Your task to perform on an android device: open app "Spotify" (install if not already installed) Image 0: 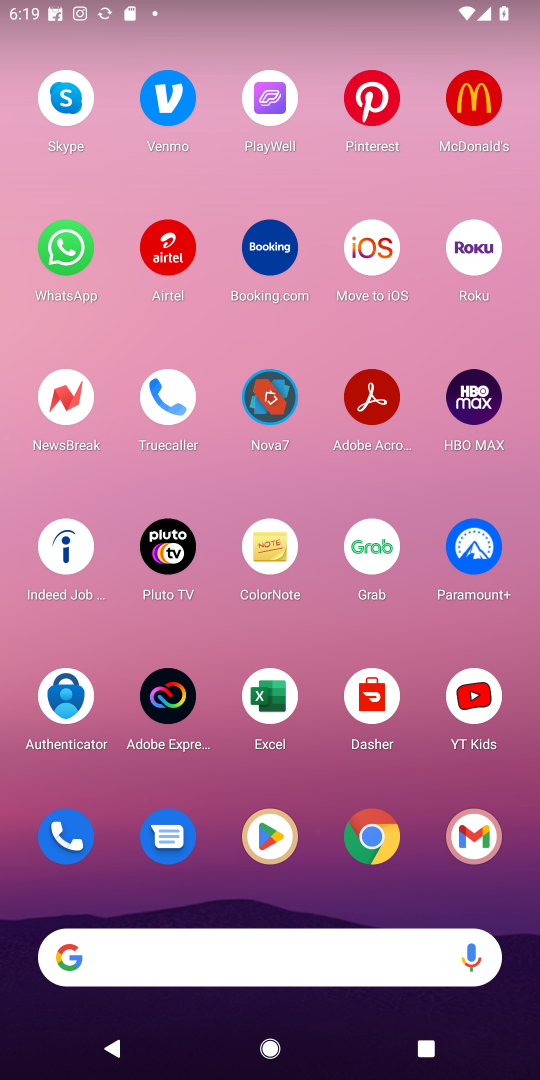
Step 0: click (271, 838)
Your task to perform on an android device: open app "Spotify" (install if not already installed) Image 1: 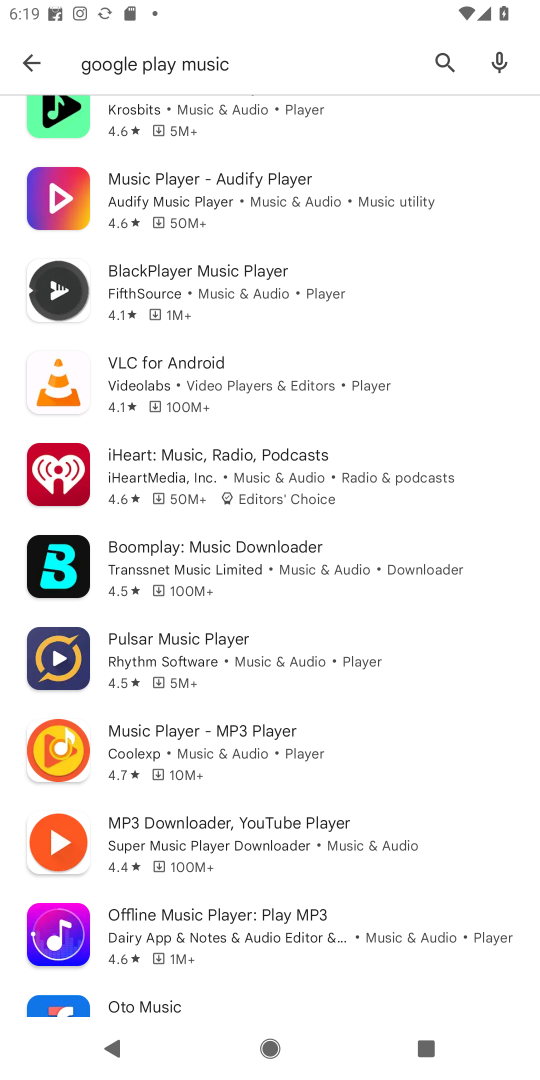
Step 1: click (441, 62)
Your task to perform on an android device: open app "Spotify" (install if not already installed) Image 2: 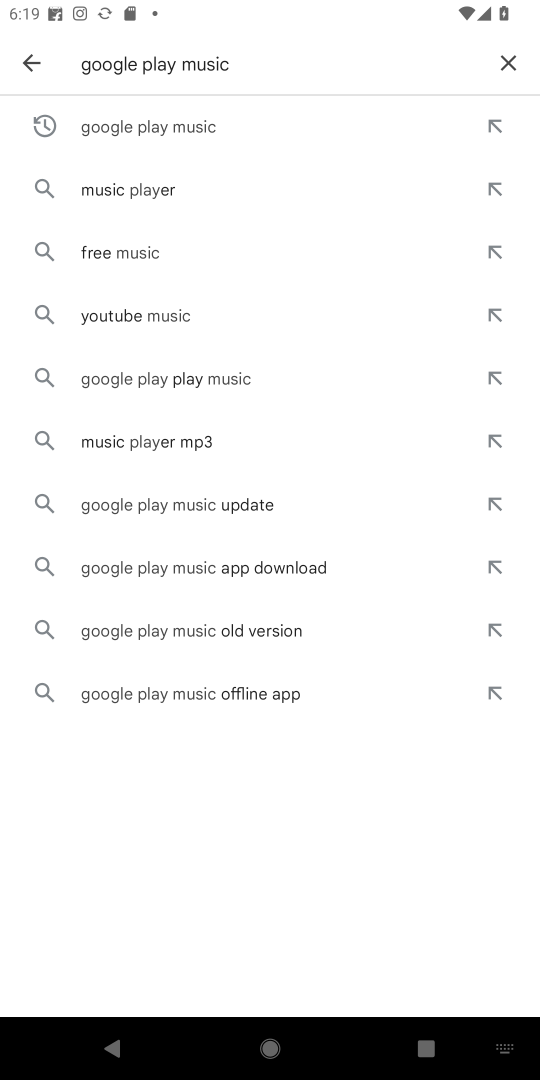
Step 2: click (511, 60)
Your task to perform on an android device: open app "Spotify" (install if not already installed) Image 3: 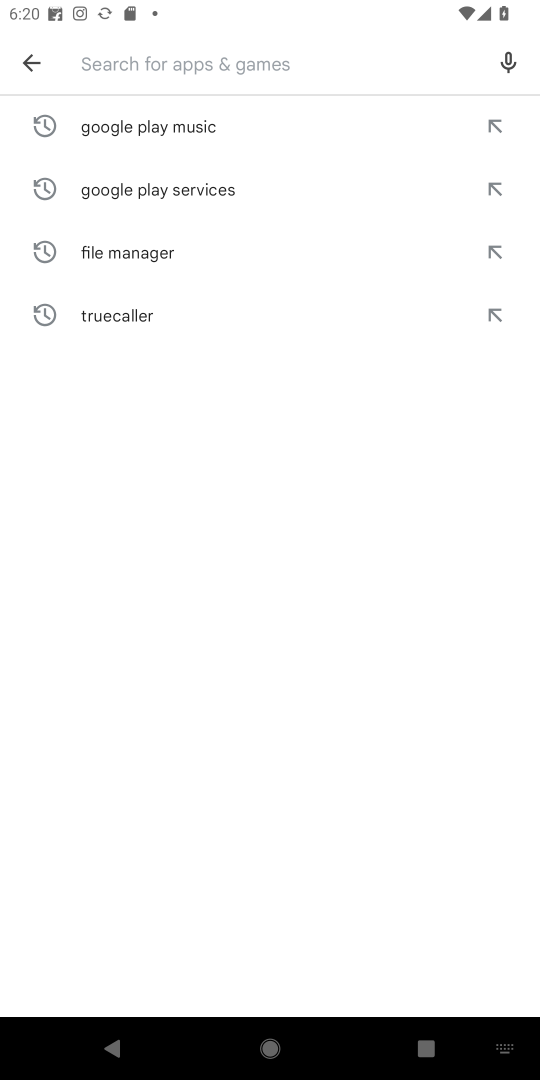
Step 3: type "spotify"
Your task to perform on an android device: open app "Spotify" (install if not already installed) Image 4: 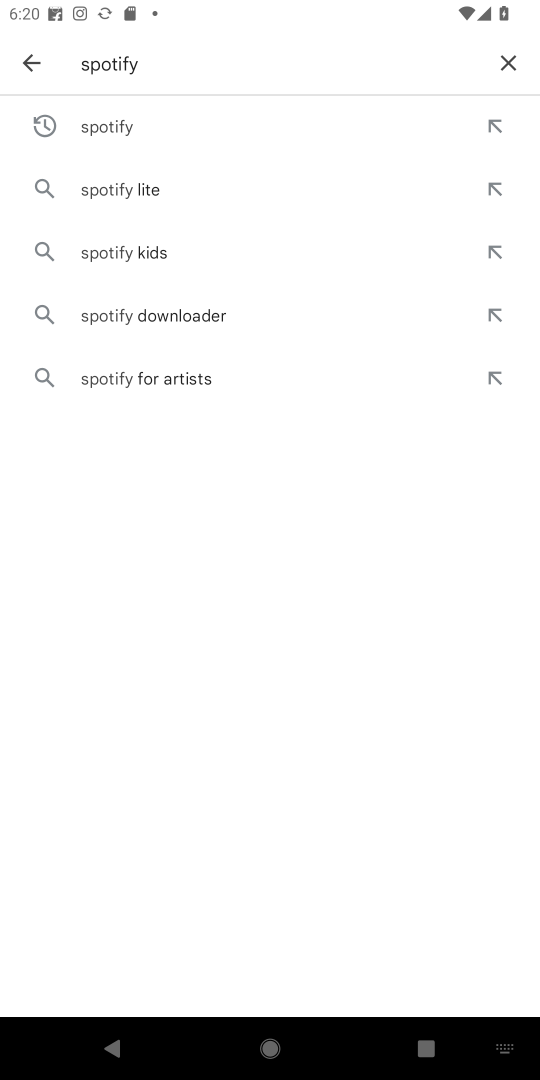
Step 4: click (110, 123)
Your task to perform on an android device: open app "Spotify" (install if not already installed) Image 5: 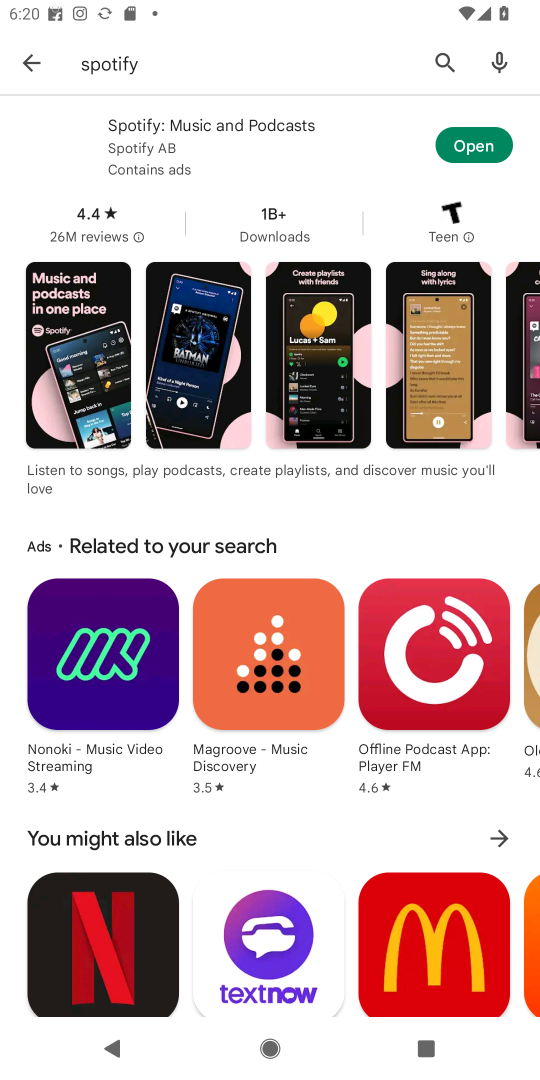
Step 5: click (470, 142)
Your task to perform on an android device: open app "Spotify" (install if not already installed) Image 6: 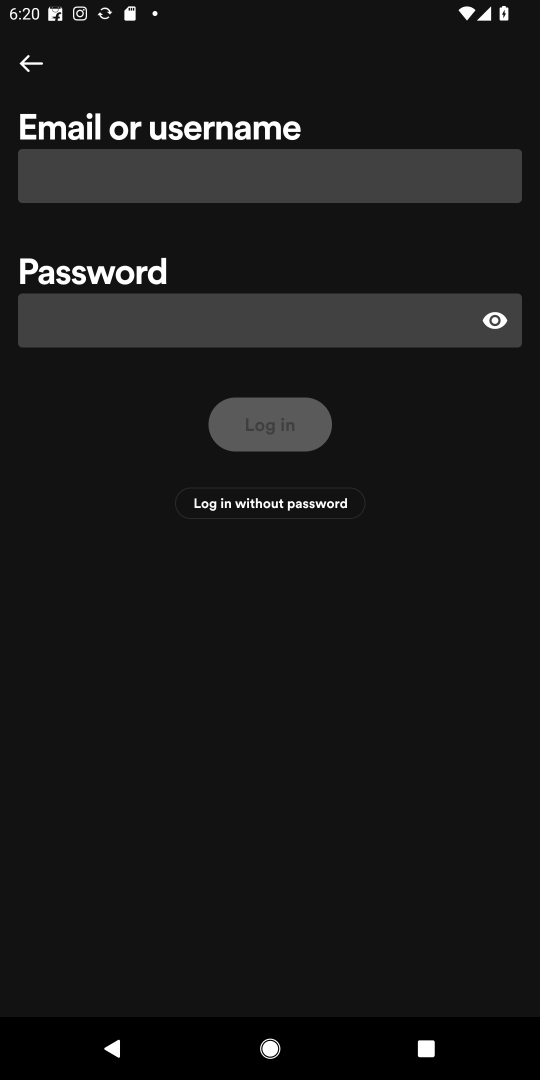
Step 6: task complete